Your task to perform on an android device: turn off location Image 0: 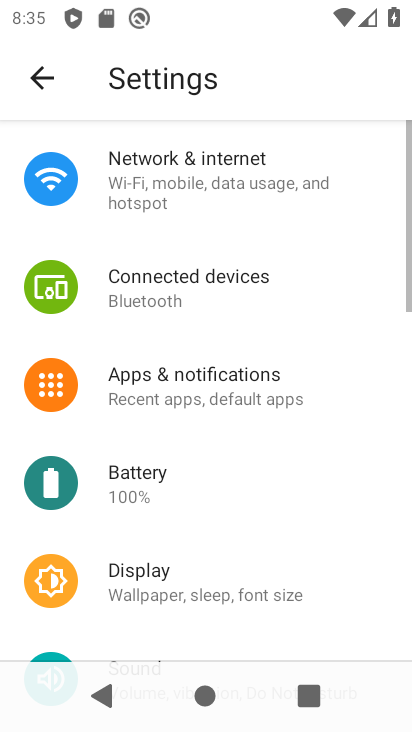
Step 0: press home button
Your task to perform on an android device: turn off location Image 1: 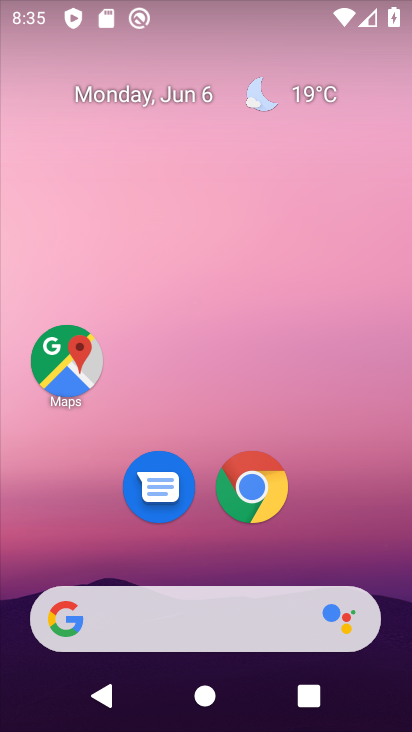
Step 1: drag from (214, 572) to (255, 35)
Your task to perform on an android device: turn off location Image 2: 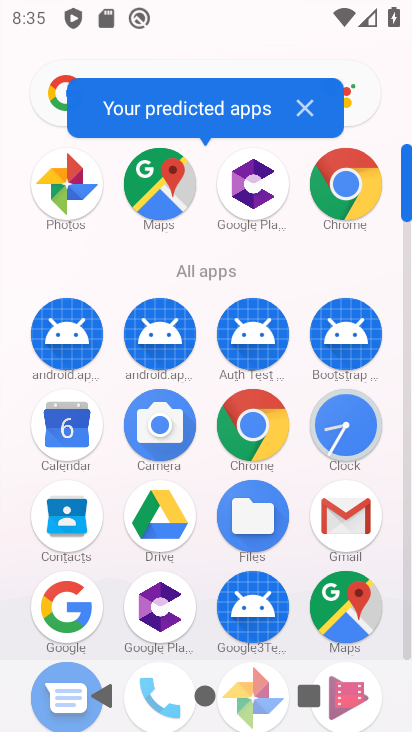
Step 2: drag from (203, 575) to (255, 29)
Your task to perform on an android device: turn off location Image 3: 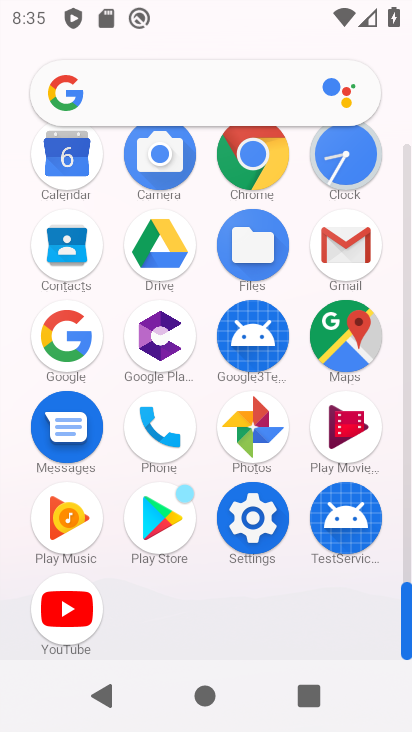
Step 3: click (250, 512)
Your task to perform on an android device: turn off location Image 4: 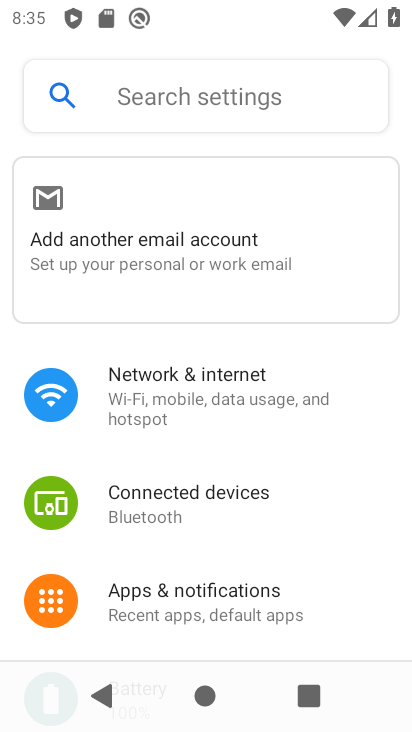
Step 4: drag from (211, 623) to (270, 34)
Your task to perform on an android device: turn off location Image 5: 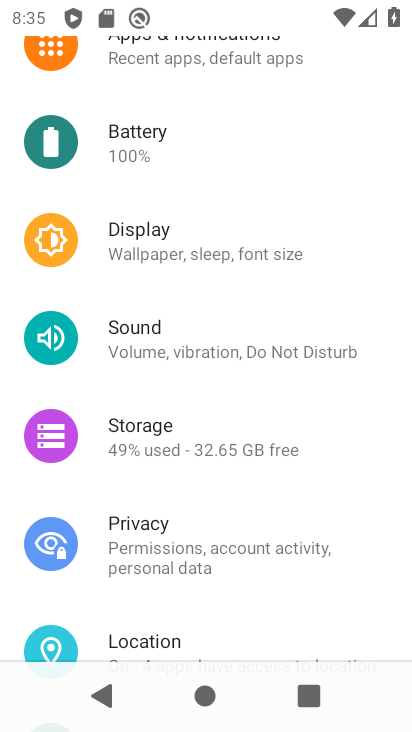
Step 5: click (203, 640)
Your task to perform on an android device: turn off location Image 6: 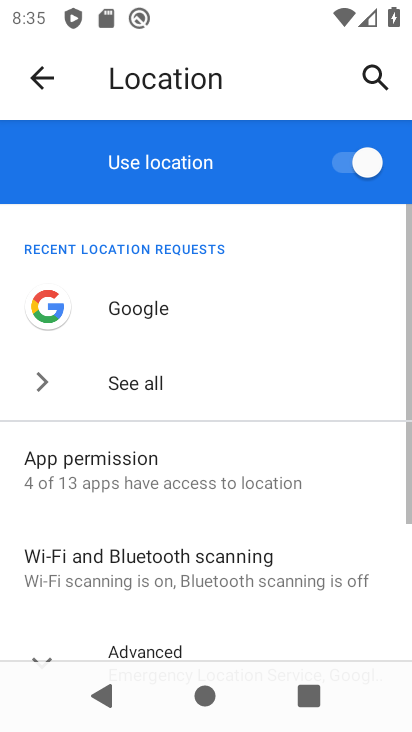
Step 6: click (337, 156)
Your task to perform on an android device: turn off location Image 7: 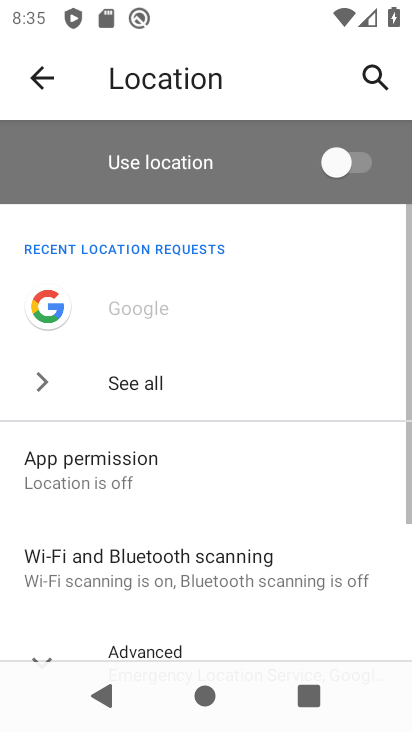
Step 7: task complete